Your task to perform on an android device: Open CNN.com Image 0: 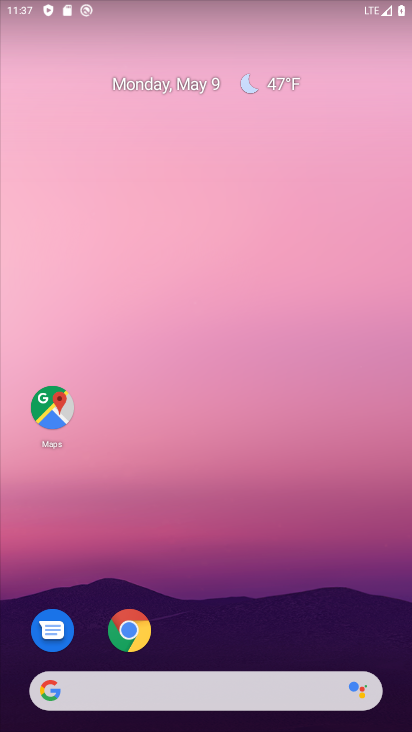
Step 0: press home button
Your task to perform on an android device: Open CNN.com Image 1: 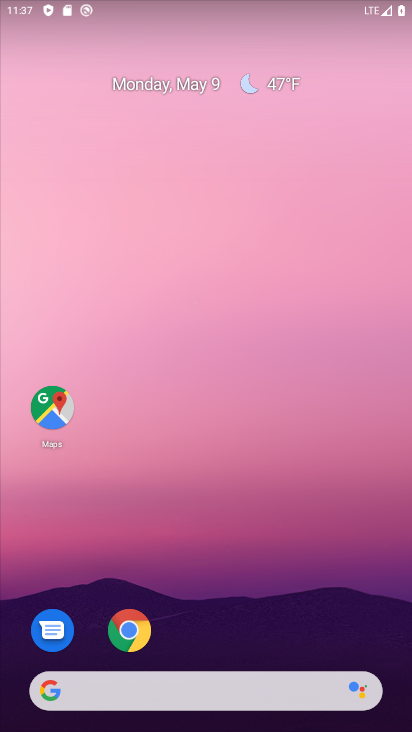
Step 1: click (125, 631)
Your task to perform on an android device: Open CNN.com Image 2: 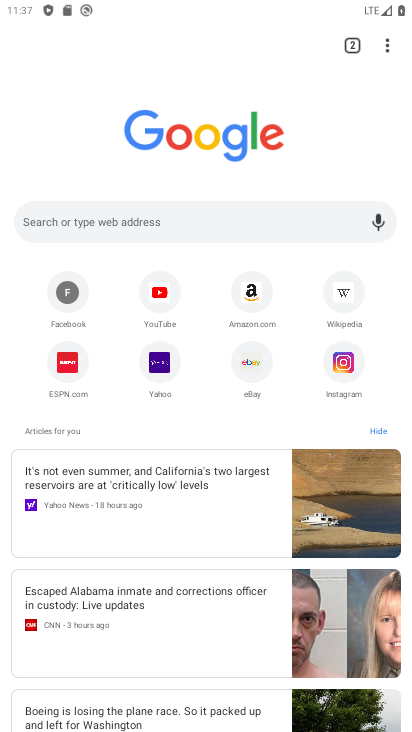
Step 2: click (122, 219)
Your task to perform on an android device: Open CNN.com Image 3: 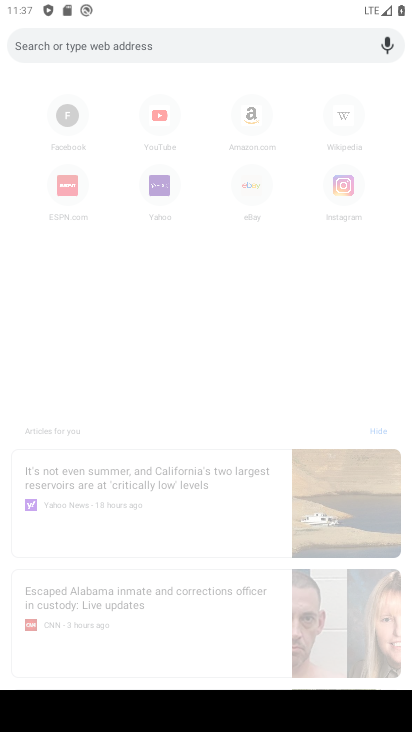
Step 3: type "cnn.com"
Your task to perform on an android device: Open CNN.com Image 4: 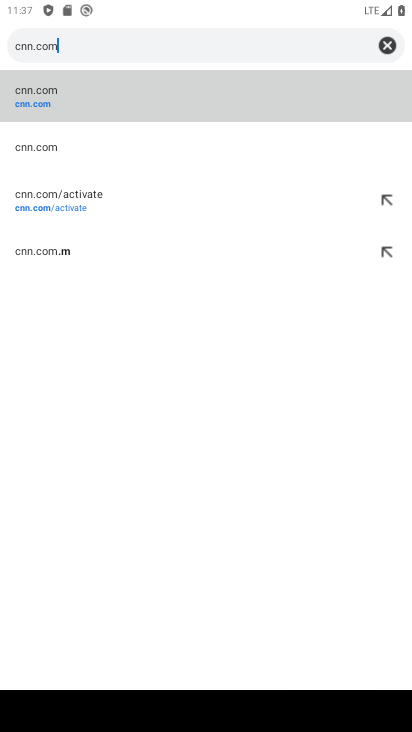
Step 4: click (101, 102)
Your task to perform on an android device: Open CNN.com Image 5: 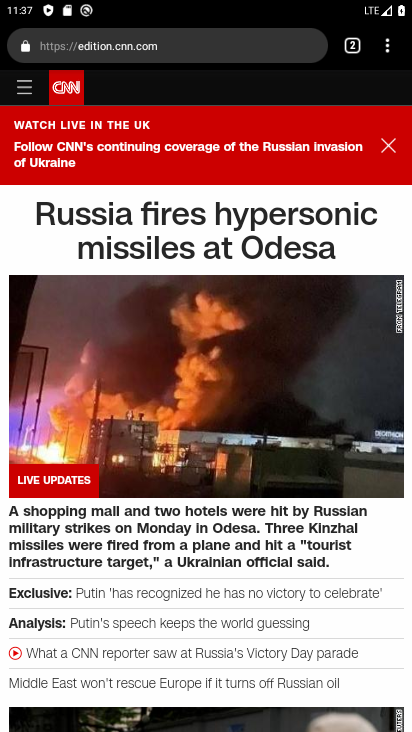
Step 5: task complete